Your task to perform on an android device: change notification settings in the gmail app Image 0: 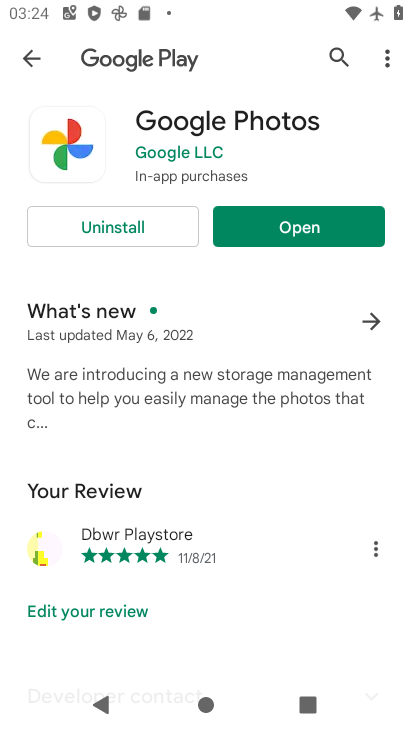
Step 0: press home button
Your task to perform on an android device: change notification settings in the gmail app Image 1: 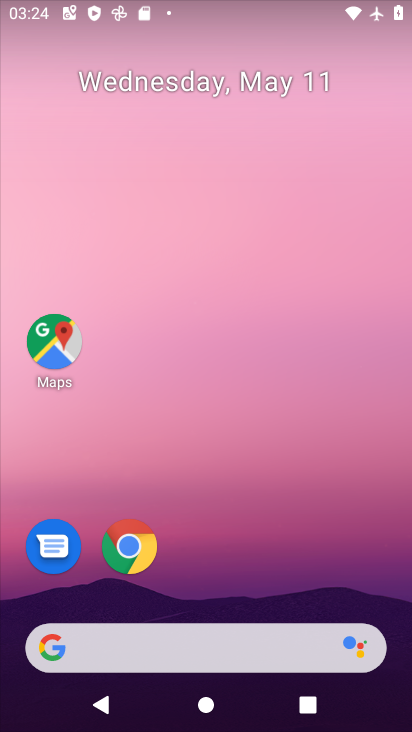
Step 1: drag from (209, 566) to (271, 146)
Your task to perform on an android device: change notification settings in the gmail app Image 2: 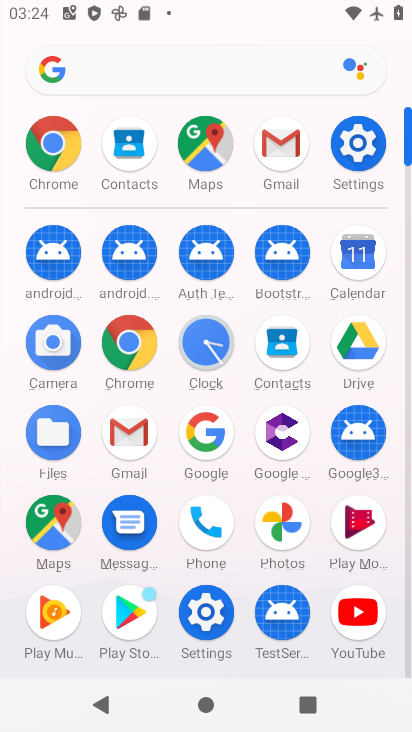
Step 2: click (130, 431)
Your task to perform on an android device: change notification settings in the gmail app Image 3: 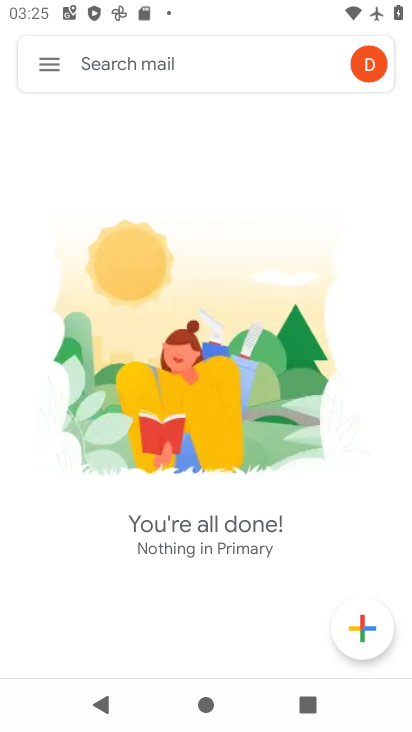
Step 3: click (45, 68)
Your task to perform on an android device: change notification settings in the gmail app Image 4: 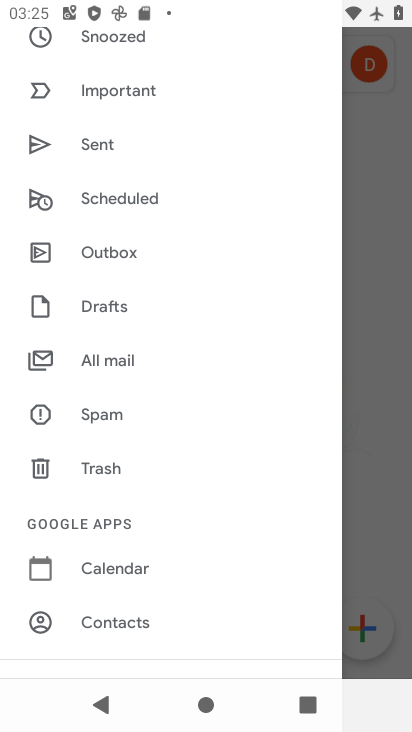
Step 4: drag from (147, 231) to (195, 731)
Your task to perform on an android device: change notification settings in the gmail app Image 5: 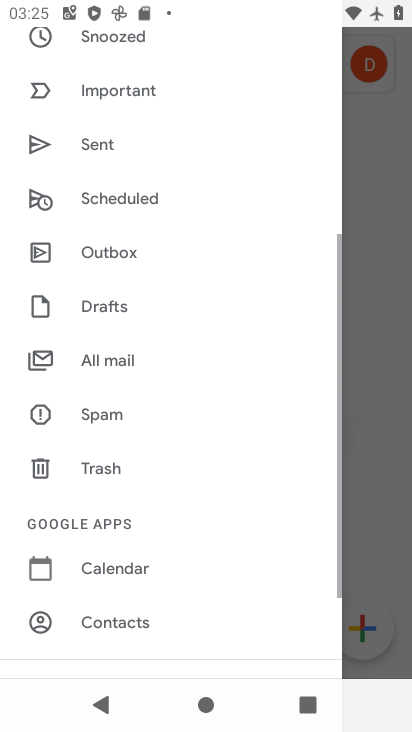
Step 5: drag from (179, 597) to (254, 173)
Your task to perform on an android device: change notification settings in the gmail app Image 6: 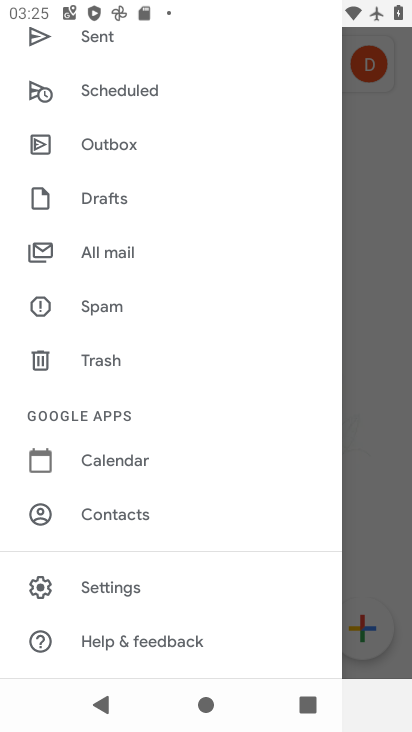
Step 6: click (96, 579)
Your task to perform on an android device: change notification settings in the gmail app Image 7: 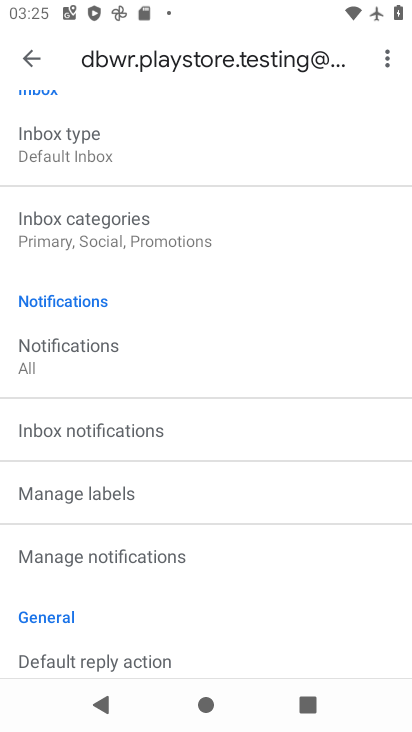
Step 7: click (96, 554)
Your task to perform on an android device: change notification settings in the gmail app Image 8: 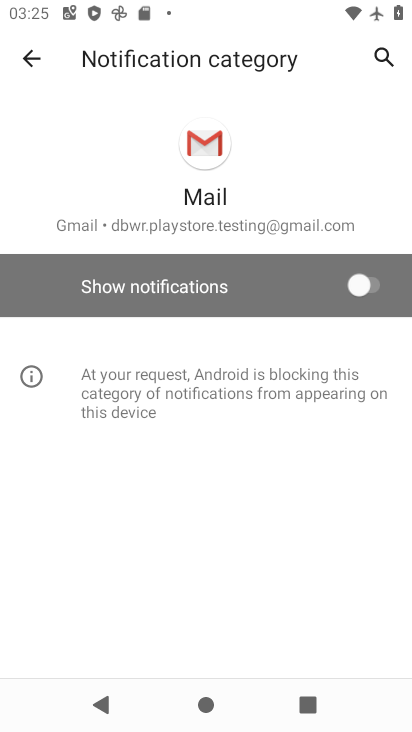
Step 8: click (339, 295)
Your task to perform on an android device: change notification settings in the gmail app Image 9: 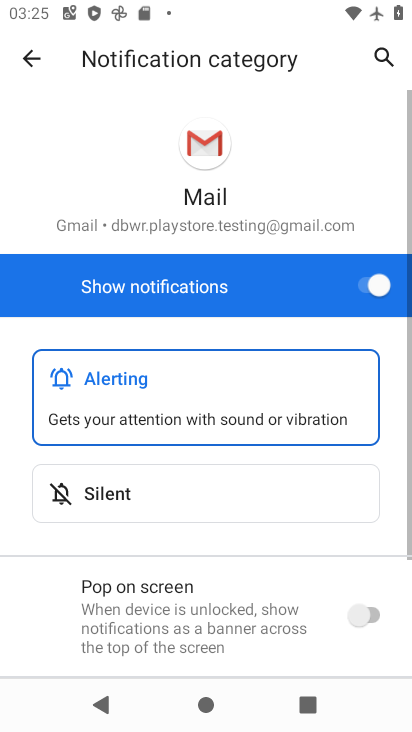
Step 9: task complete